Your task to perform on an android device: visit the assistant section in the google photos Image 0: 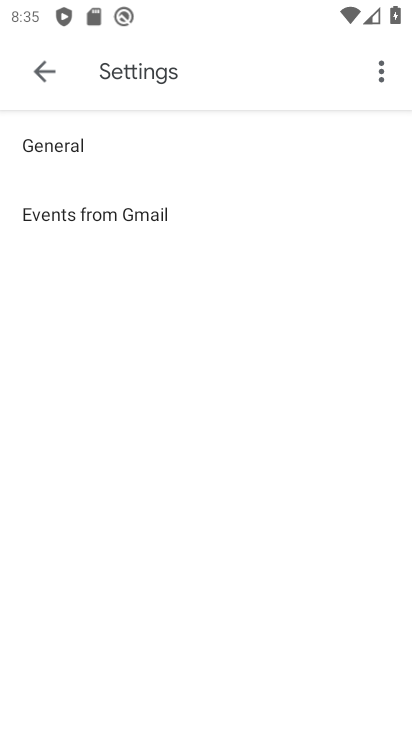
Step 0: press home button
Your task to perform on an android device: visit the assistant section in the google photos Image 1: 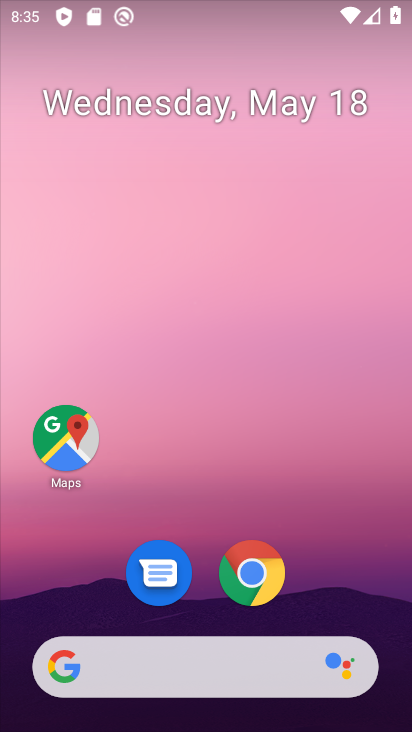
Step 1: drag from (199, 713) to (157, 328)
Your task to perform on an android device: visit the assistant section in the google photos Image 2: 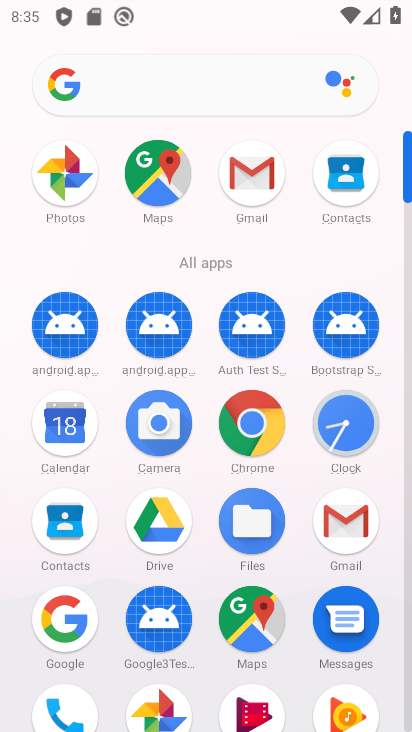
Step 2: click (50, 178)
Your task to perform on an android device: visit the assistant section in the google photos Image 3: 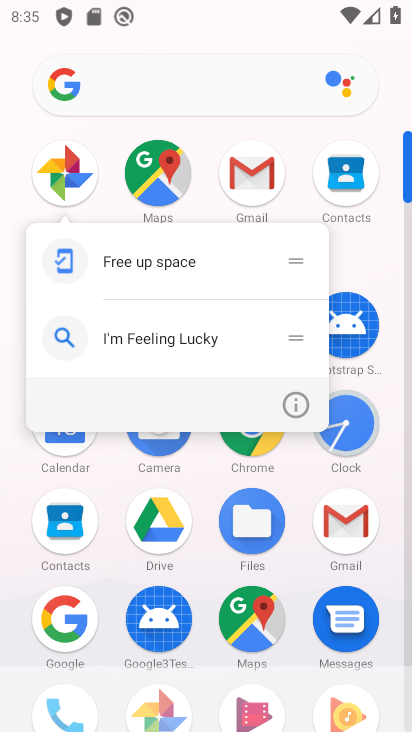
Step 3: click (58, 180)
Your task to perform on an android device: visit the assistant section in the google photos Image 4: 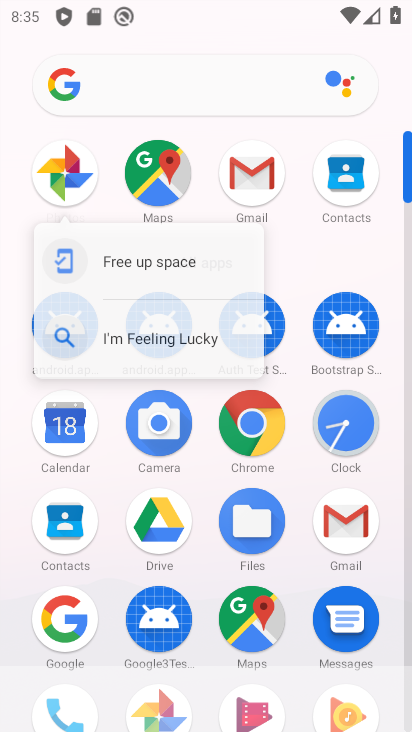
Step 4: click (58, 180)
Your task to perform on an android device: visit the assistant section in the google photos Image 5: 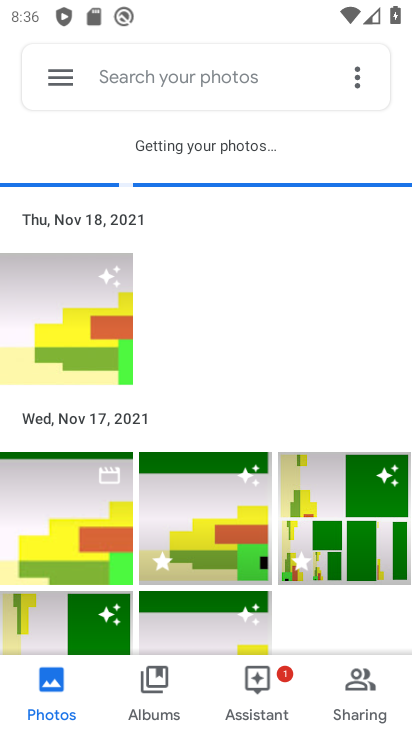
Step 5: click (257, 706)
Your task to perform on an android device: visit the assistant section in the google photos Image 6: 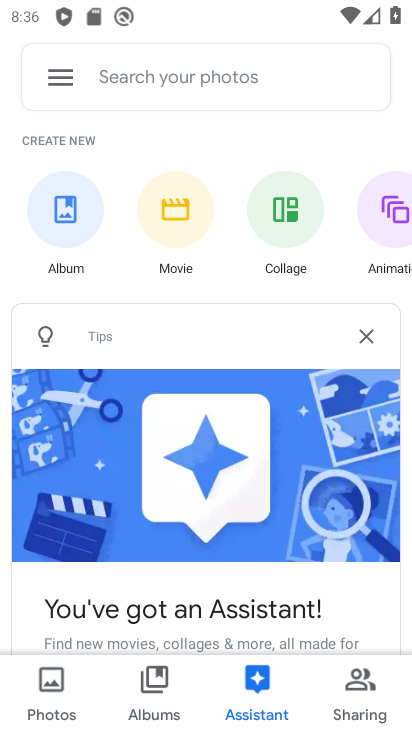
Step 6: task complete